Your task to perform on an android device: Open the web browser Image 0: 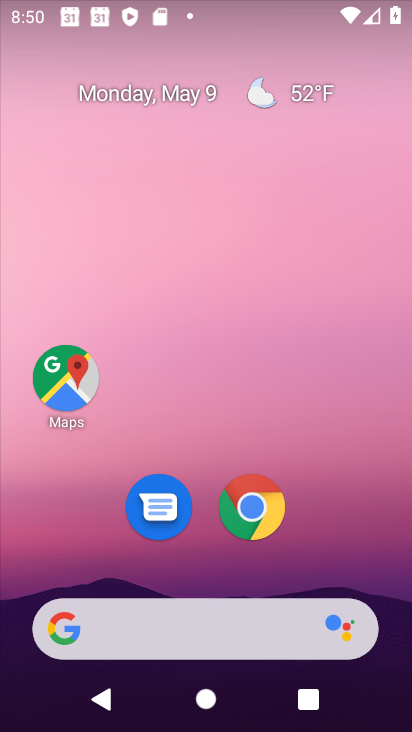
Step 0: click (251, 502)
Your task to perform on an android device: Open the web browser Image 1: 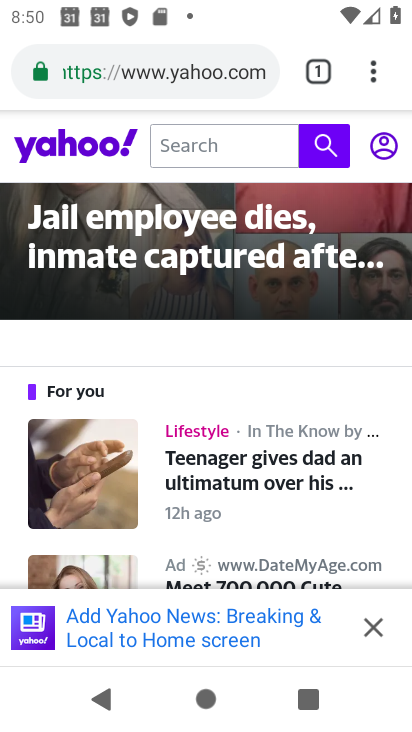
Step 1: task complete